Your task to perform on an android device: Go to Yahoo.com Image 0: 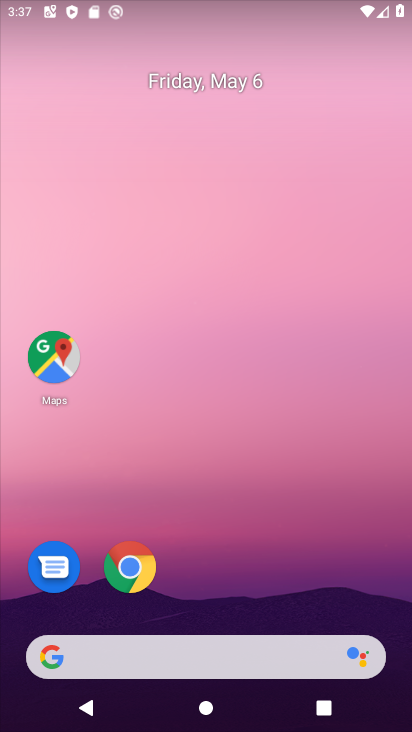
Step 0: click (125, 661)
Your task to perform on an android device: Go to Yahoo.com Image 1: 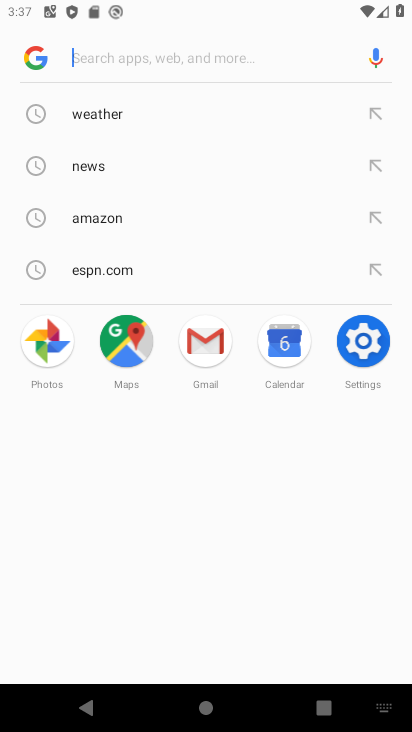
Step 1: type "yahoo"
Your task to perform on an android device: Go to Yahoo.com Image 2: 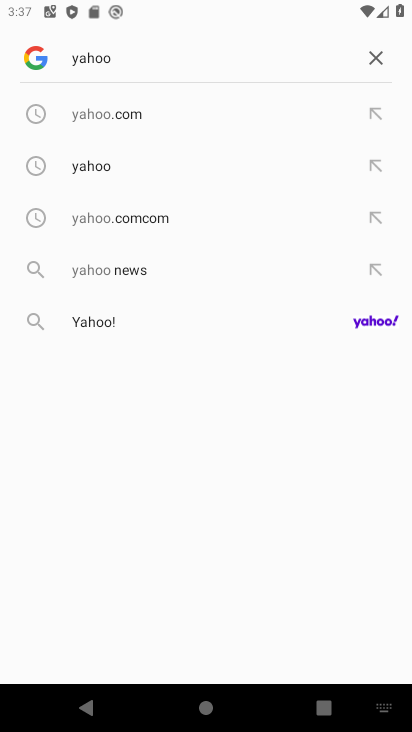
Step 2: click (113, 116)
Your task to perform on an android device: Go to Yahoo.com Image 3: 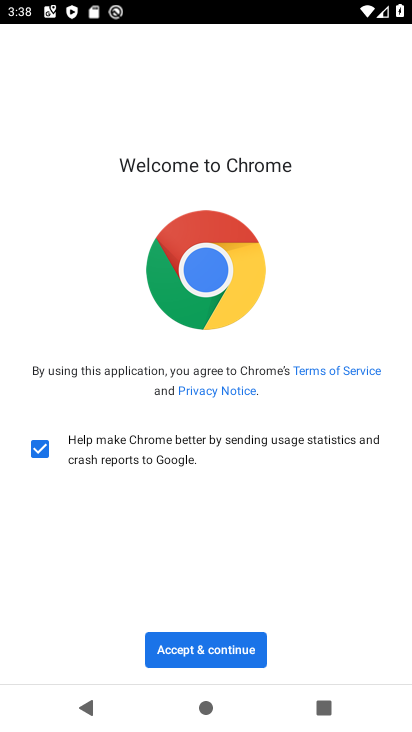
Step 3: click (206, 652)
Your task to perform on an android device: Go to Yahoo.com Image 4: 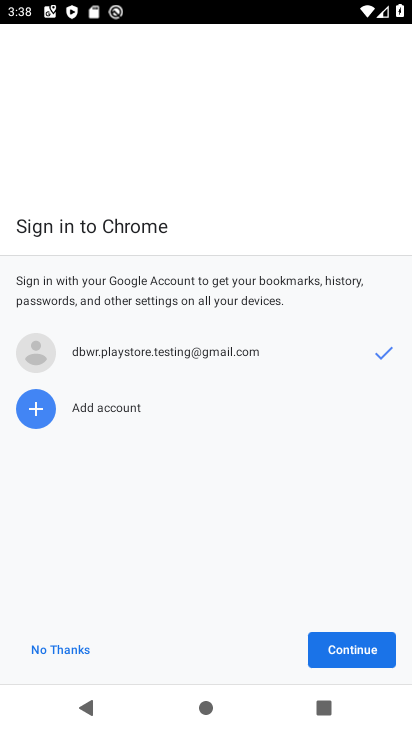
Step 4: click (314, 659)
Your task to perform on an android device: Go to Yahoo.com Image 5: 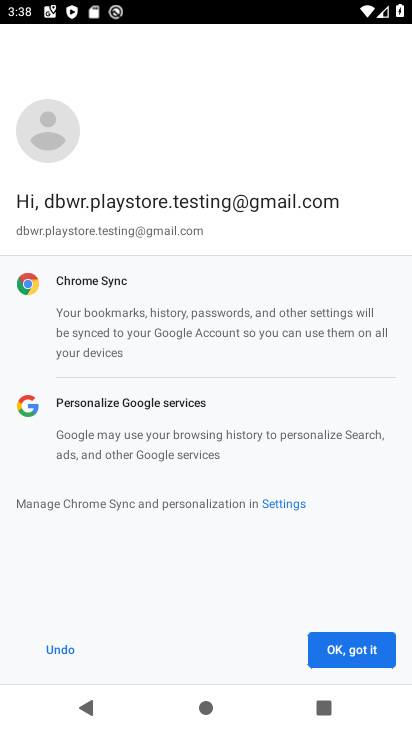
Step 5: click (314, 659)
Your task to perform on an android device: Go to Yahoo.com Image 6: 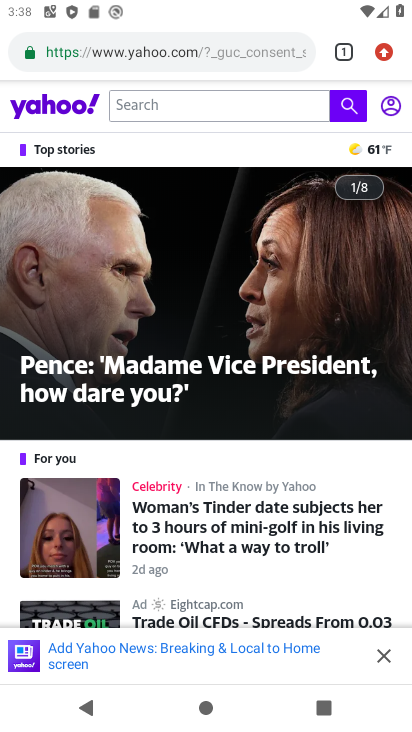
Step 6: task complete